Your task to perform on an android device: Find coffee shops on Maps Image 0: 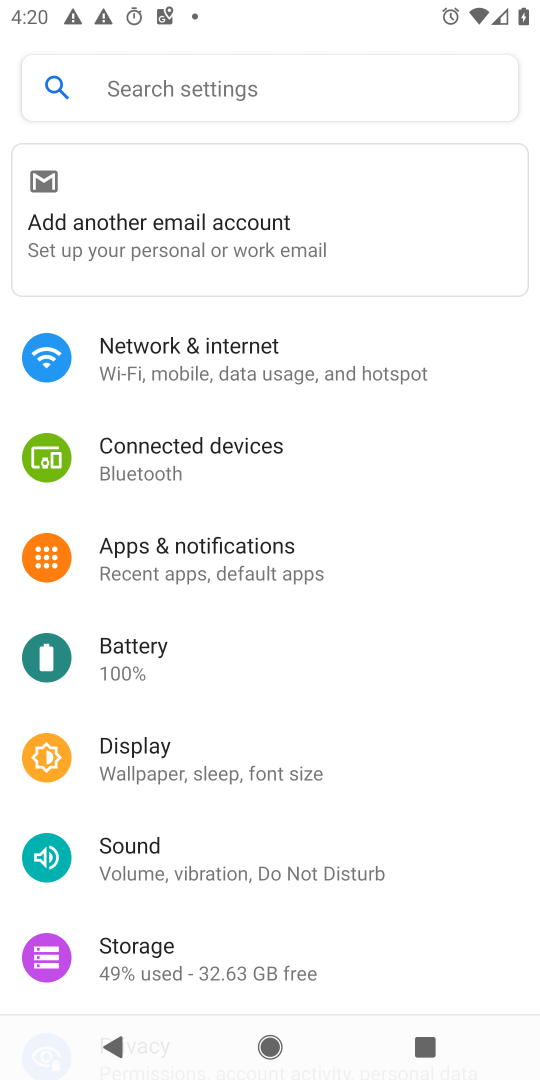
Step 0: press home button
Your task to perform on an android device: Find coffee shops on Maps Image 1: 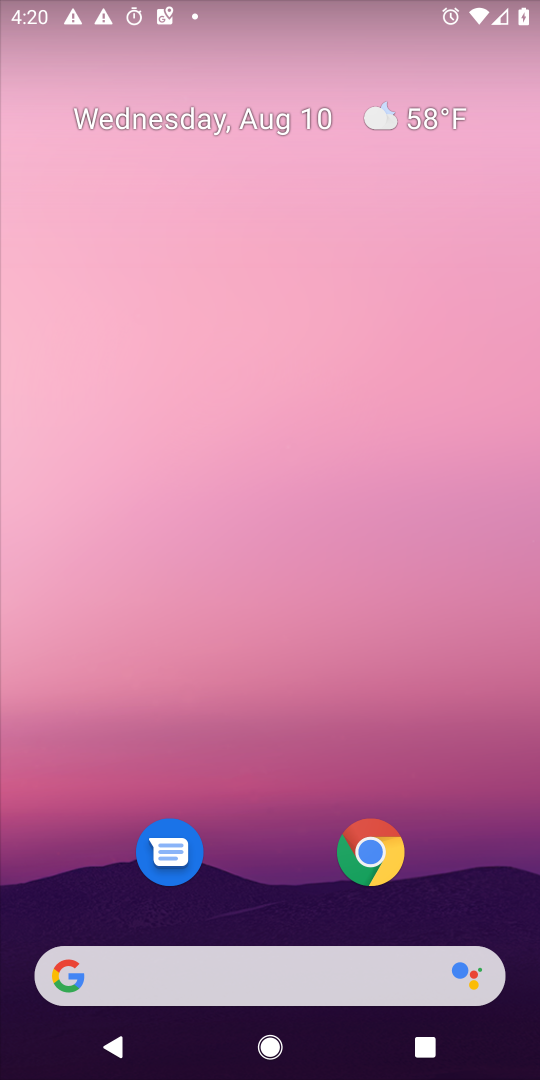
Step 1: drag from (288, 837) to (221, 174)
Your task to perform on an android device: Find coffee shops on Maps Image 2: 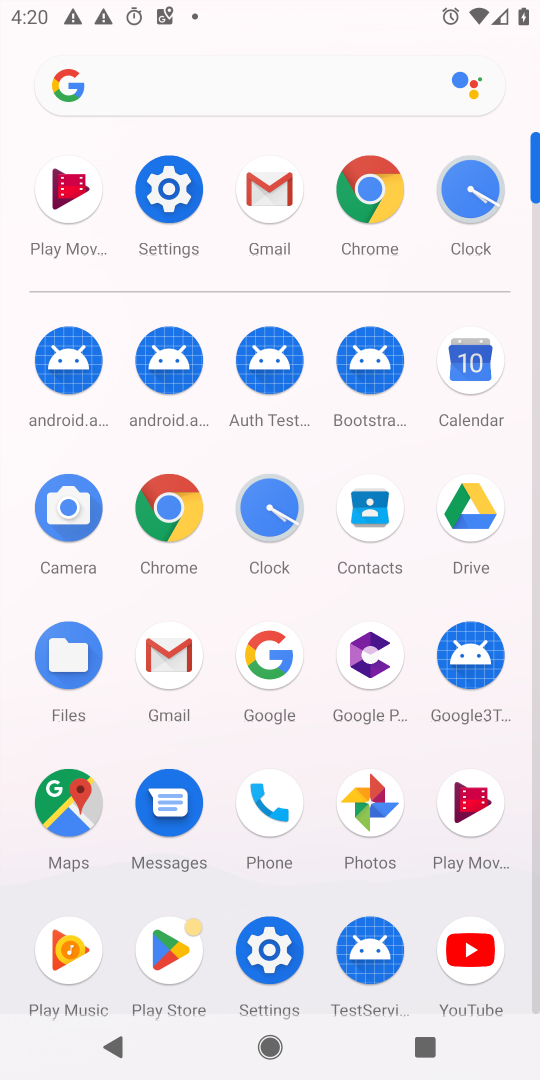
Step 2: click (54, 796)
Your task to perform on an android device: Find coffee shops on Maps Image 3: 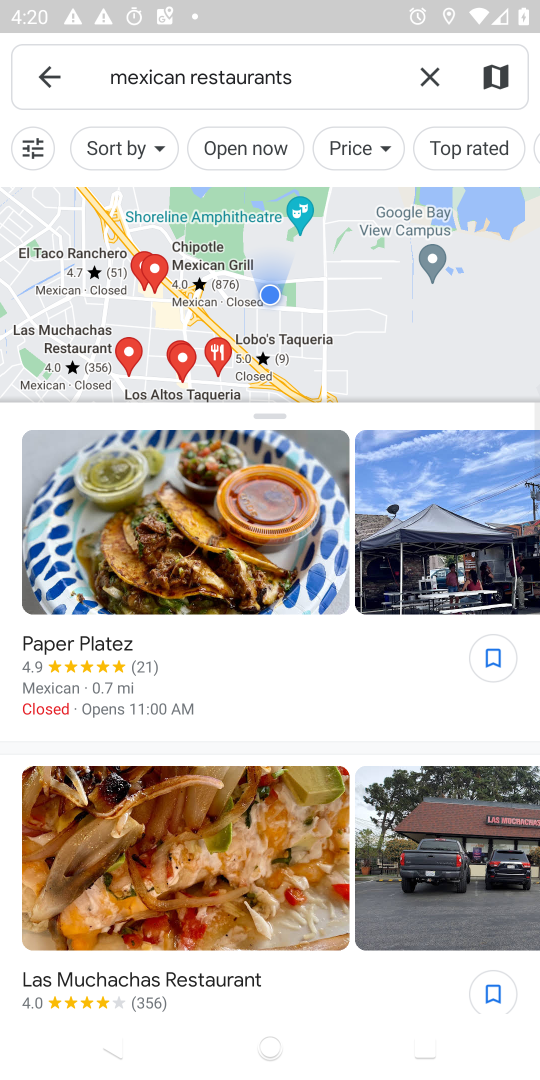
Step 3: click (420, 81)
Your task to perform on an android device: Find coffee shops on Maps Image 4: 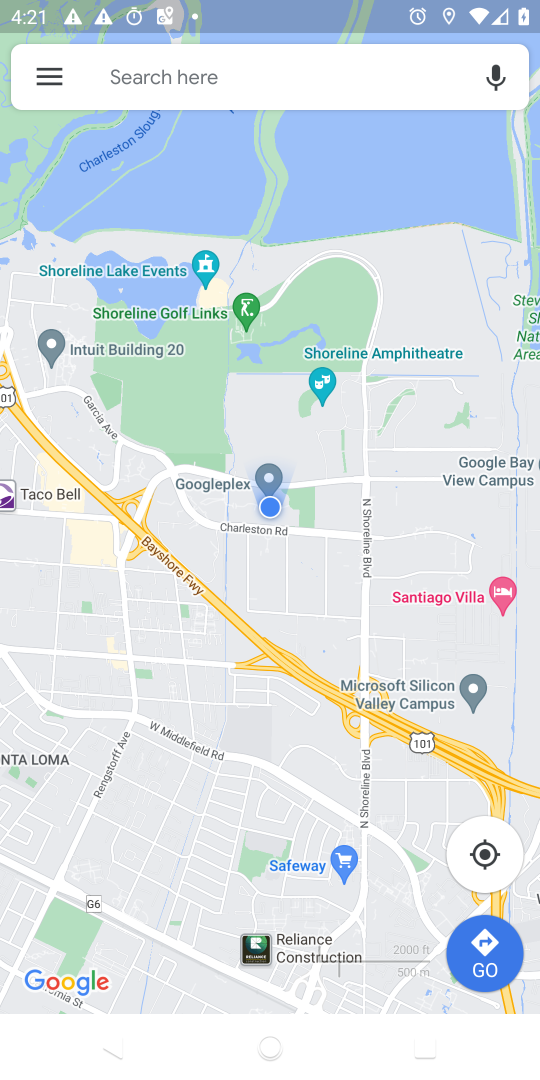
Step 4: click (348, 94)
Your task to perform on an android device: Find coffee shops on Maps Image 5: 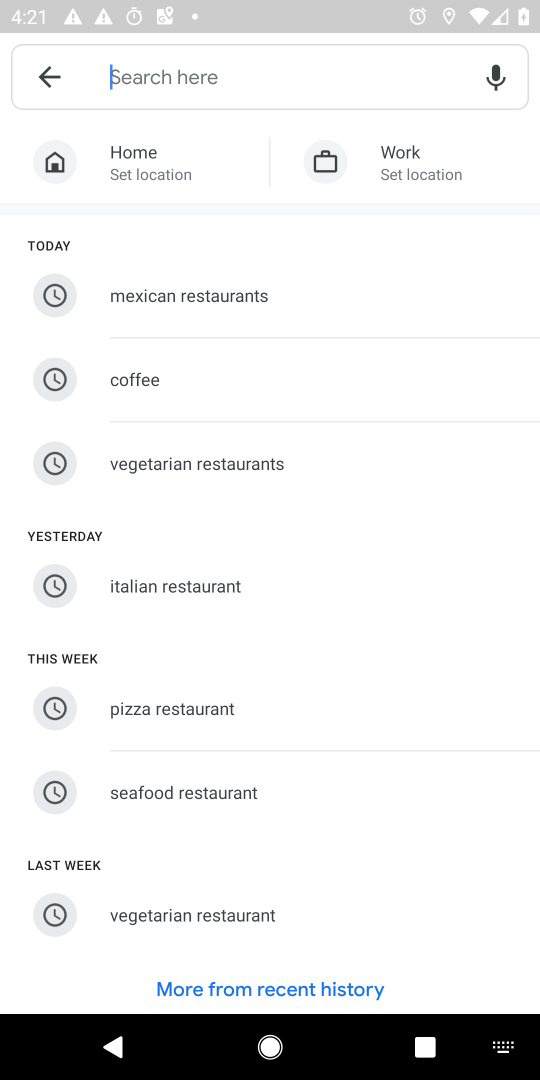
Step 5: type "coffee shops"
Your task to perform on an android device: Find coffee shops on Maps Image 6: 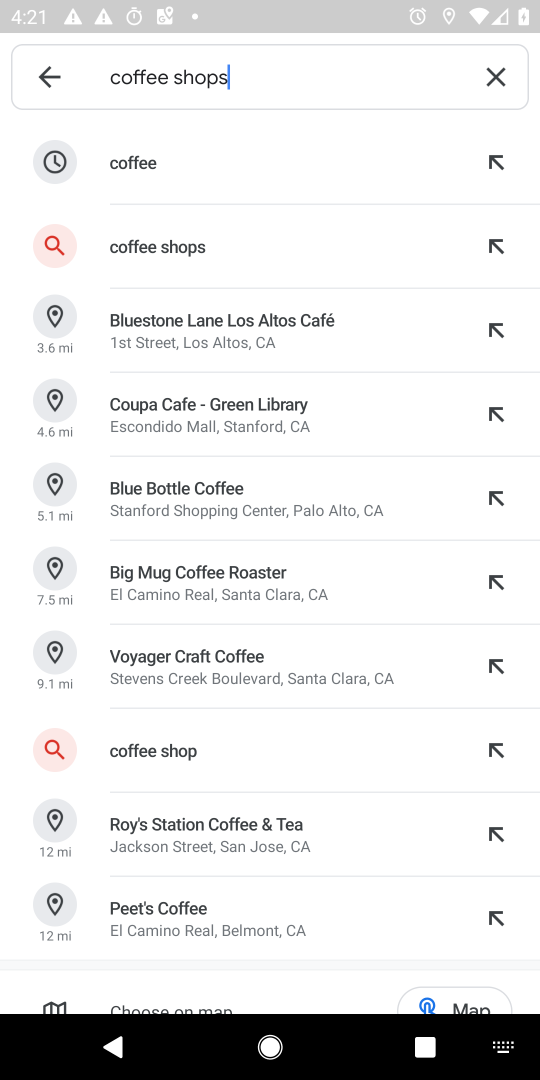
Step 6: press enter
Your task to perform on an android device: Find coffee shops on Maps Image 7: 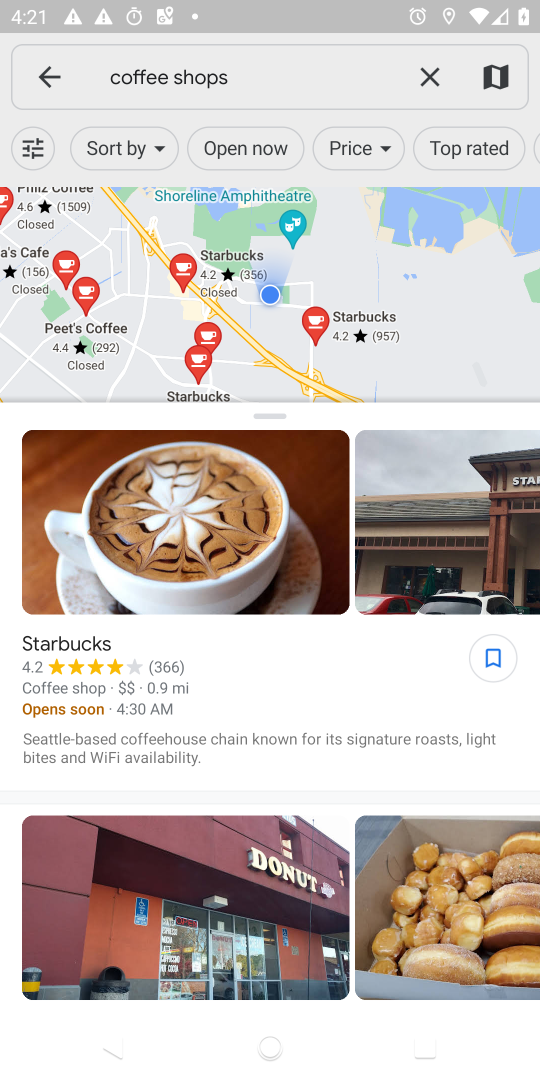
Step 7: task complete